Your task to perform on an android device: Open the web browser Image 0: 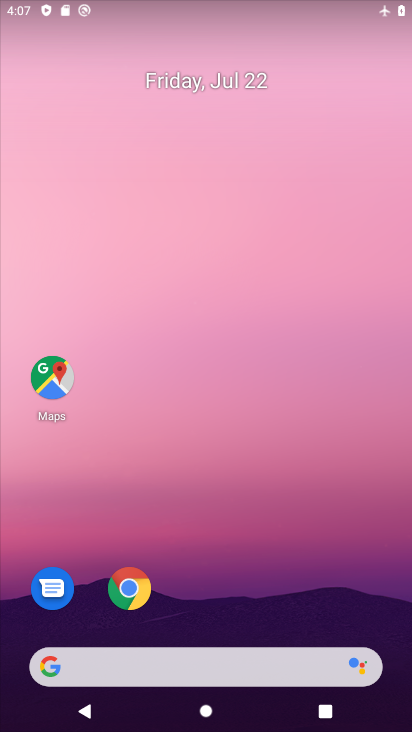
Step 0: click (126, 595)
Your task to perform on an android device: Open the web browser Image 1: 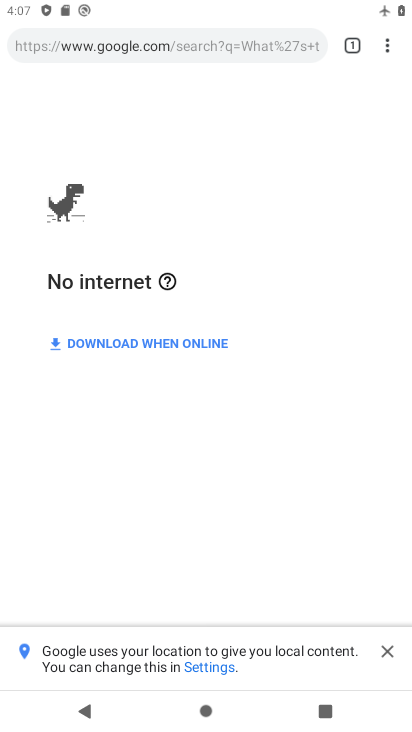
Step 1: click (126, 595)
Your task to perform on an android device: Open the web browser Image 2: 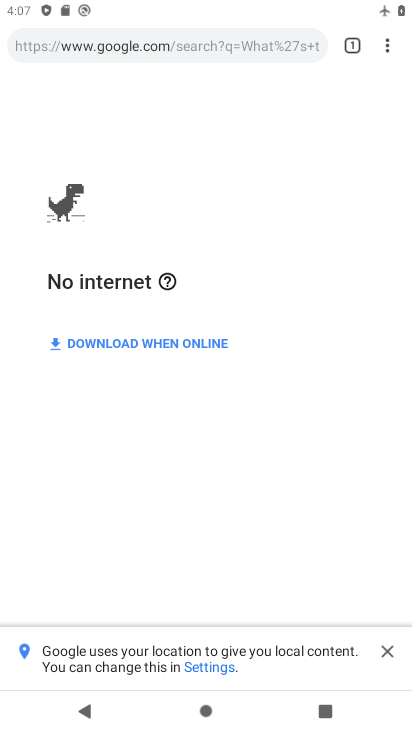
Step 2: task complete